Your task to perform on an android device: turn notification dots on Image 0: 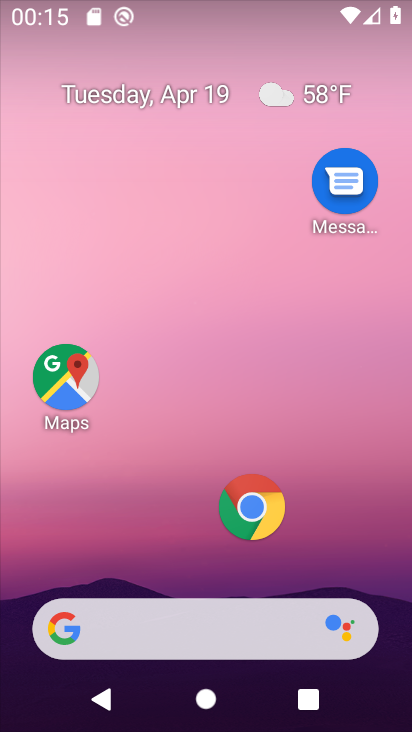
Step 0: drag from (181, 540) to (379, 4)
Your task to perform on an android device: turn notification dots on Image 1: 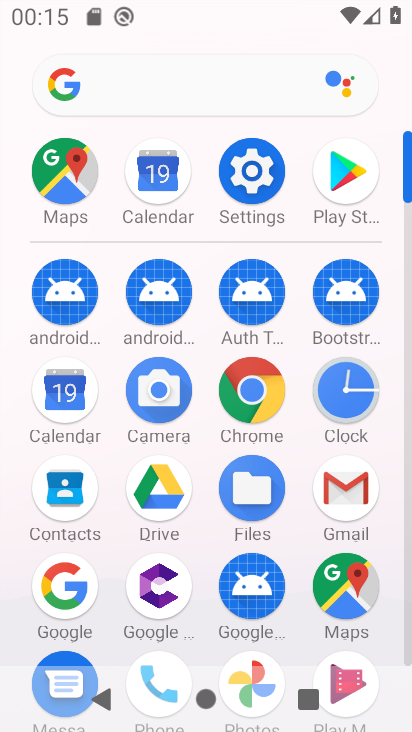
Step 1: click (253, 171)
Your task to perform on an android device: turn notification dots on Image 2: 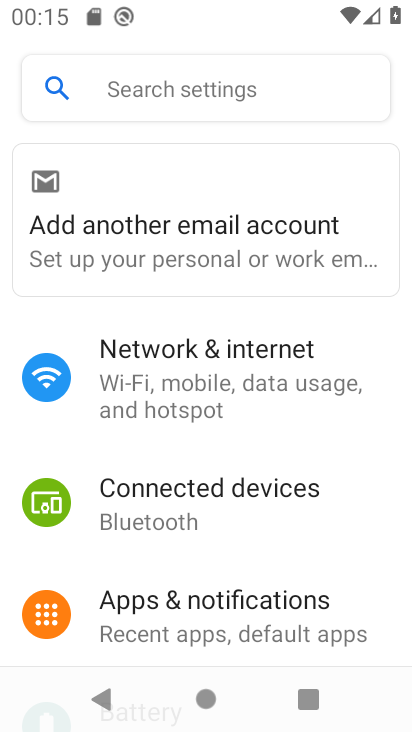
Step 2: click (193, 594)
Your task to perform on an android device: turn notification dots on Image 3: 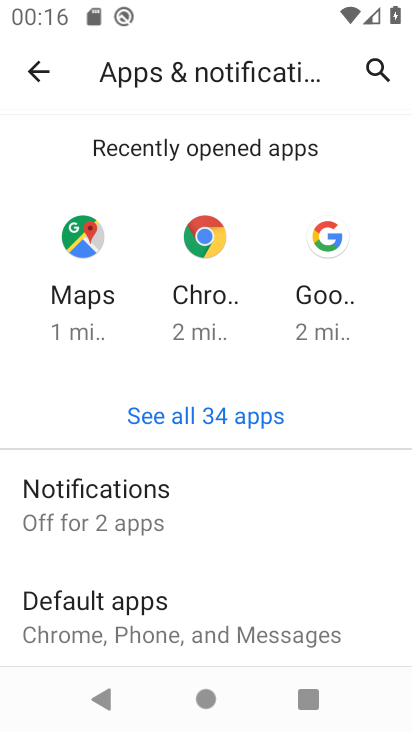
Step 3: click (131, 516)
Your task to perform on an android device: turn notification dots on Image 4: 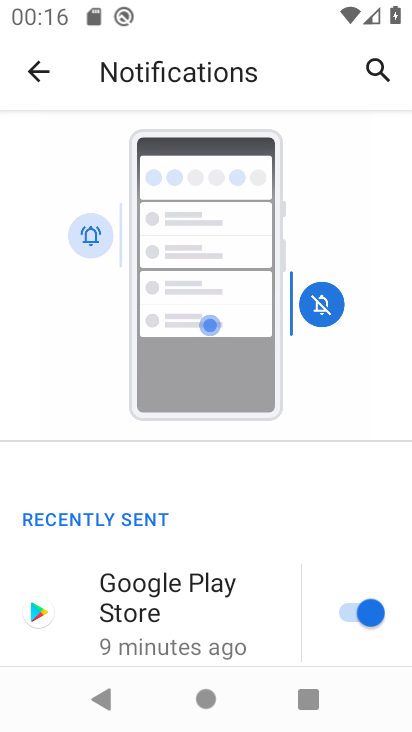
Step 4: drag from (178, 526) to (265, 8)
Your task to perform on an android device: turn notification dots on Image 5: 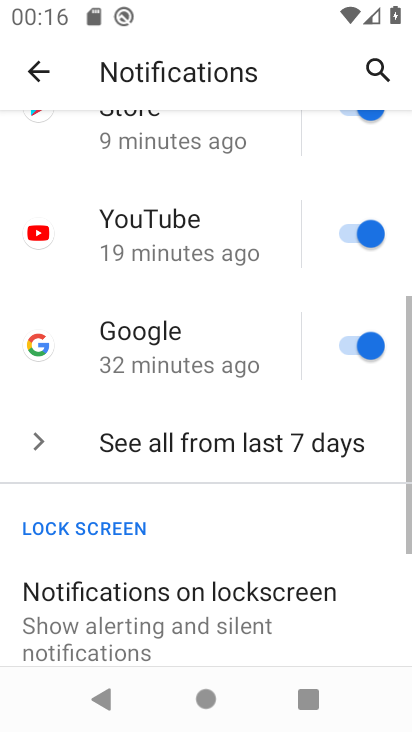
Step 5: drag from (165, 538) to (221, 128)
Your task to perform on an android device: turn notification dots on Image 6: 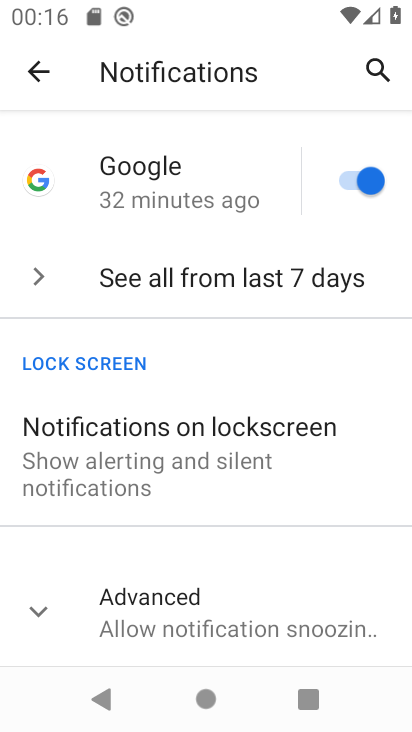
Step 6: click (177, 610)
Your task to perform on an android device: turn notification dots on Image 7: 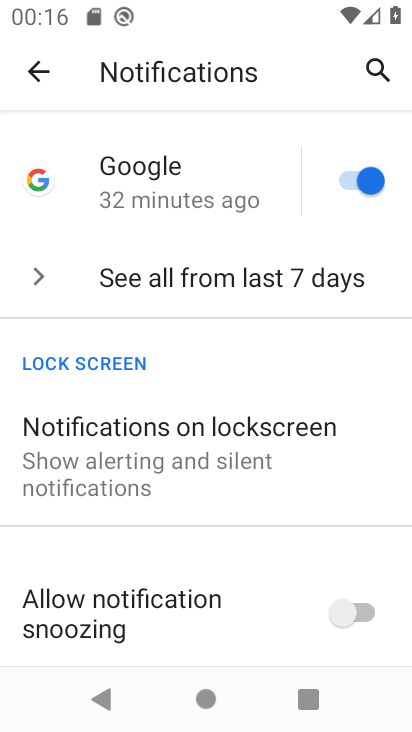
Step 7: drag from (191, 531) to (259, 96)
Your task to perform on an android device: turn notification dots on Image 8: 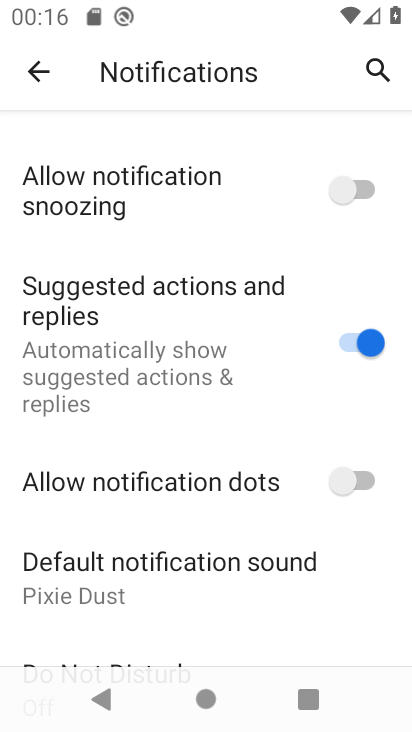
Step 8: click (363, 466)
Your task to perform on an android device: turn notification dots on Image 9: 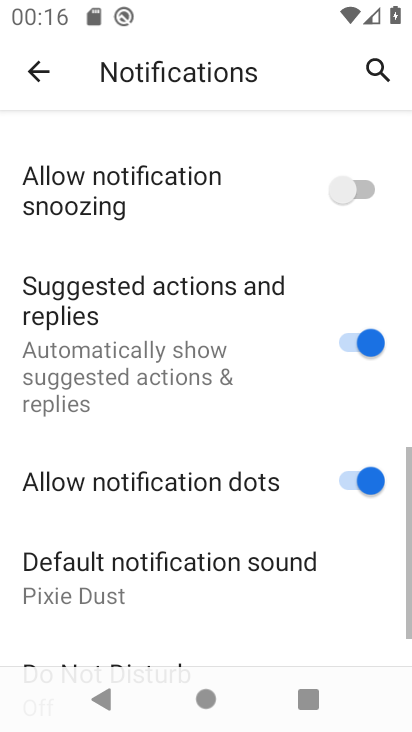
Step 9: task complete